Your task to perform on an android device: toggle wifi Image 0: 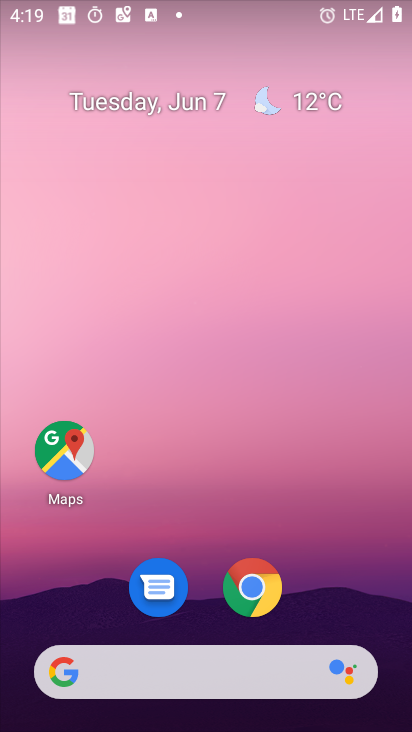
Step 0: drag from (312, 601) to (262, 211)
Your task to perform on an android device: toggle wifi Image 1: 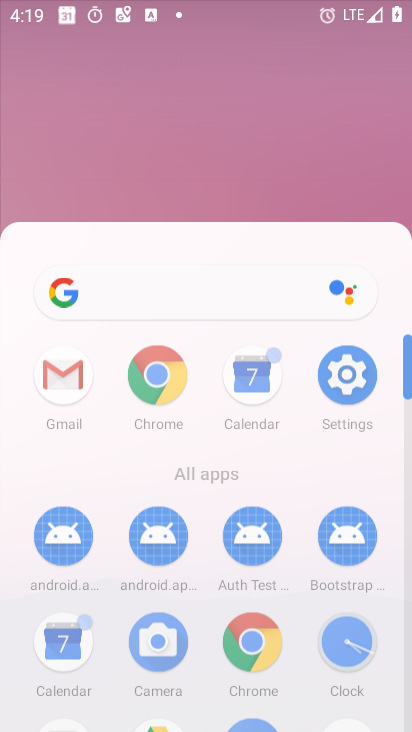
Step 1: click (285, 46)
Your task to perform on an android device: toggle wifi Image 2: 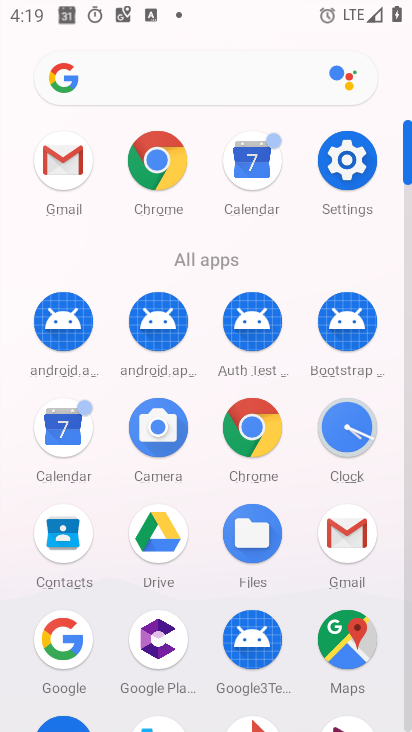
Step 2: click (341, 174)
Your task to perform on an android device: toggle wifi Image 3: 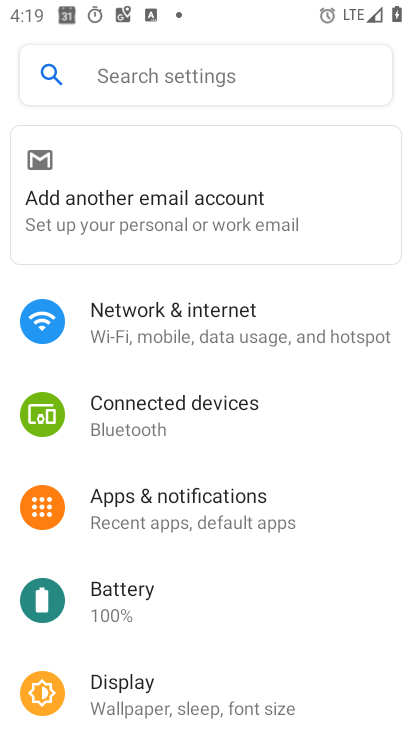
Step 3: click (253, 331)
Your task to perform on an android device: toggle wifi Image 4: 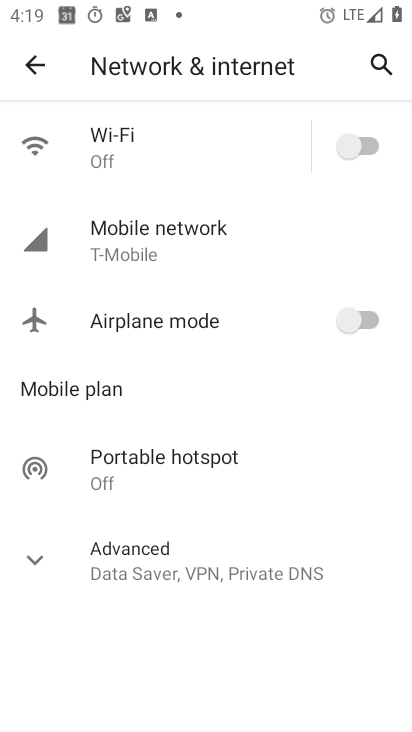
Step 4: click (277, 152)
Your task to perform on an android device: toggle wifi Image 5: 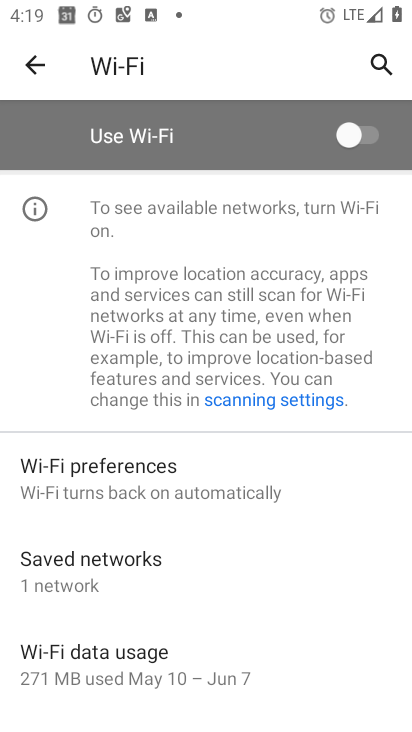
Step 5: click (361, 135)
Your task to perform on an android device: toggle wifi Image 6: 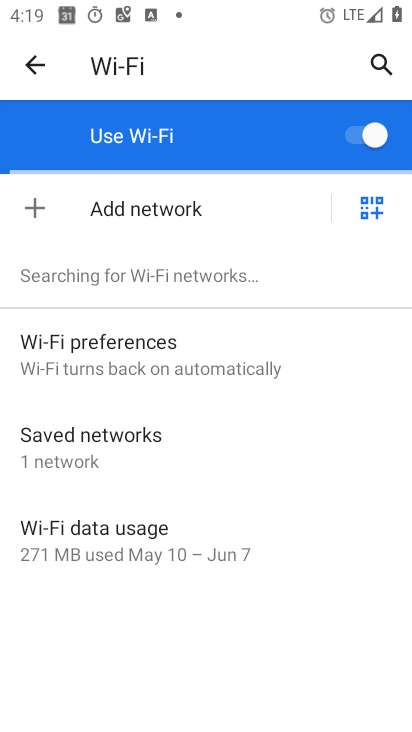
Step 6: task complete